Your task to perform on an android device: Open internet settings Image 0: 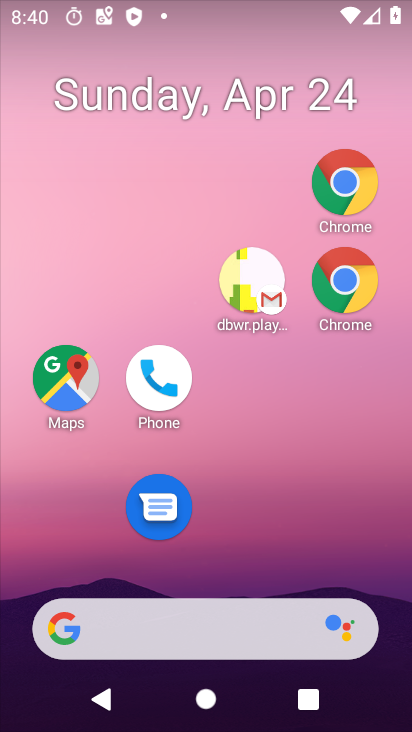
Step 0: drag from (275, 643) to (207, 221)
Your task to perform on an android device: Open internet settings Image 1: 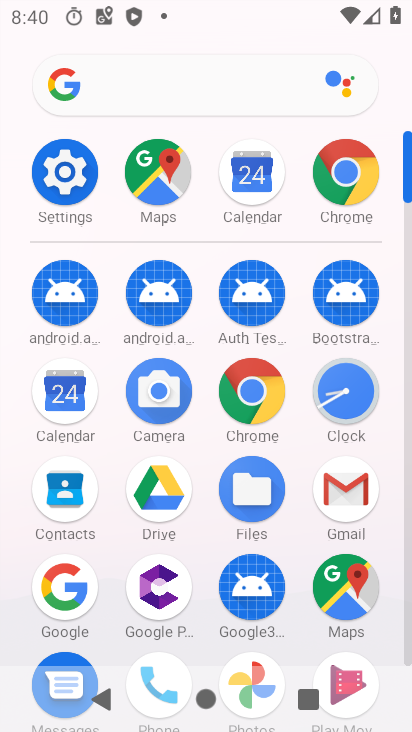
Step 1: click (65, 181)
Your task to perform on an android device: Open internet settings Image 2: 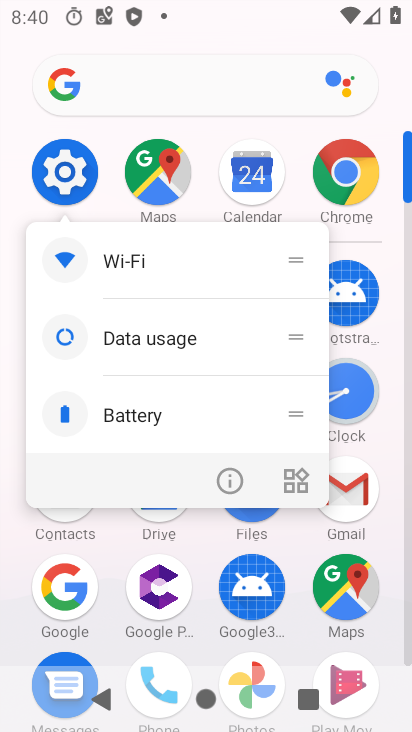
Step 2: click (41, 164)
Your task to perform on an android device: Open internet settings Image 3: 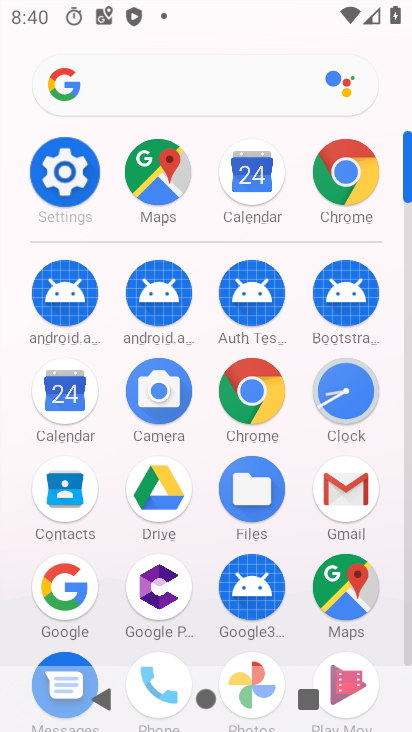
Step 3: click (59, 182)
Your task to perform on an android device: Open internet settings Image 4: 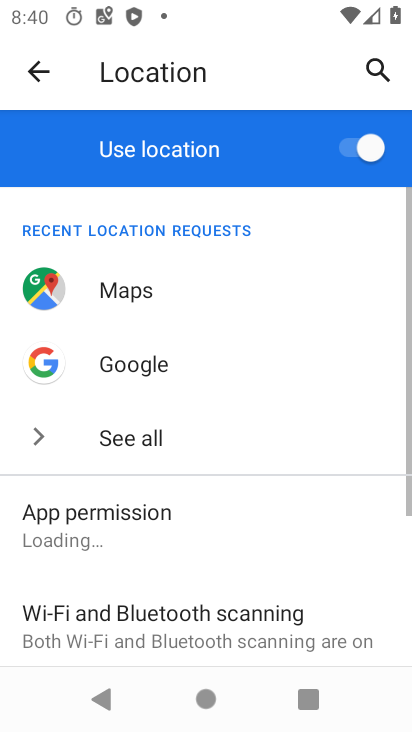
Step 4: drag from (174, 191) to (227, 642)
Your task to perform on an android device: Open internet settings Image 5: 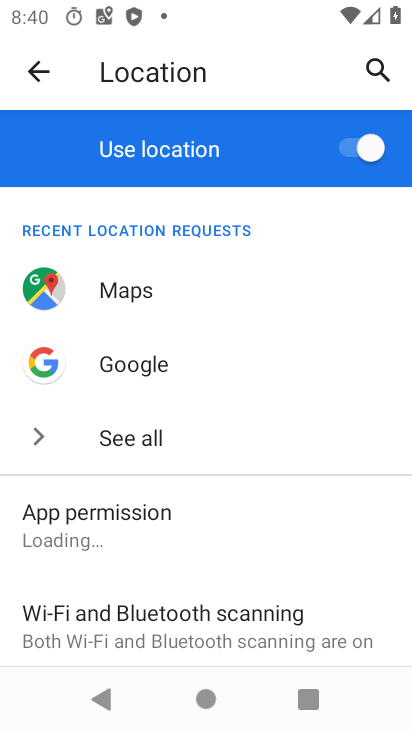
Step 5: click (23, 71)
Your task to perform on an android device: Open internet settings Image 6: 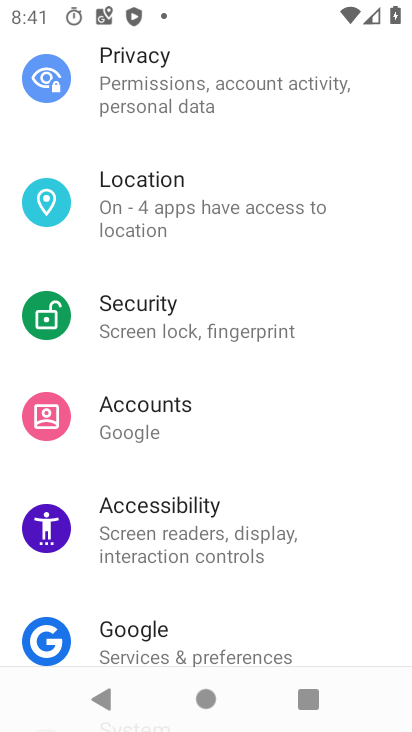
Step 6: drag from (154, 200) to (195, 615)
Your task to perform on an android device: Open internet settings Image 7: 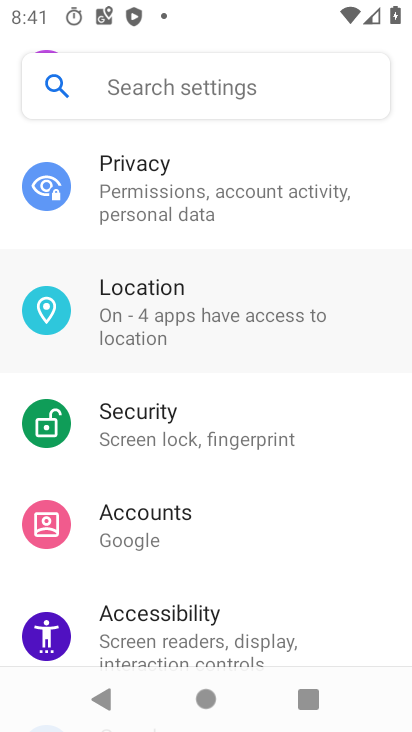
Step 7: drag from (221, 278) to (232, 730)
Your task to perform on an android device: Open internet settings Image 8: 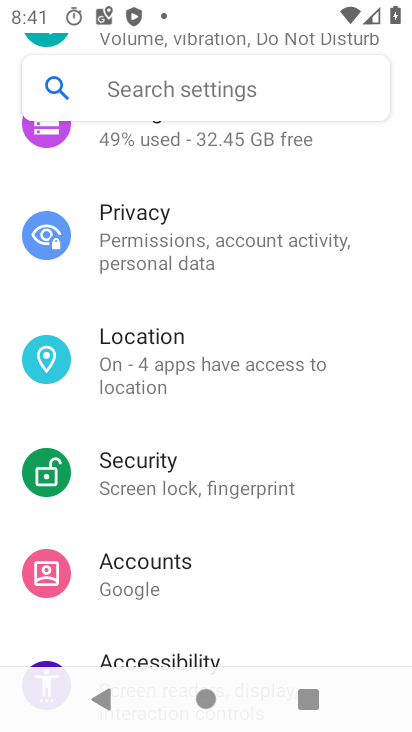
Step 8: drag from (199, 448) to (203, 633)
Your task to perform on an android device: Open internet settings Image 9: 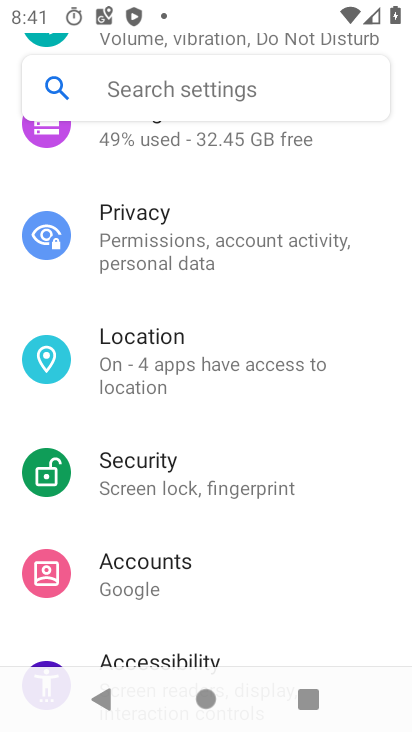
Step 9: drag from (228, 336) to (189, 683)
Your task to perform on an android device: Open internet settings Image 10: 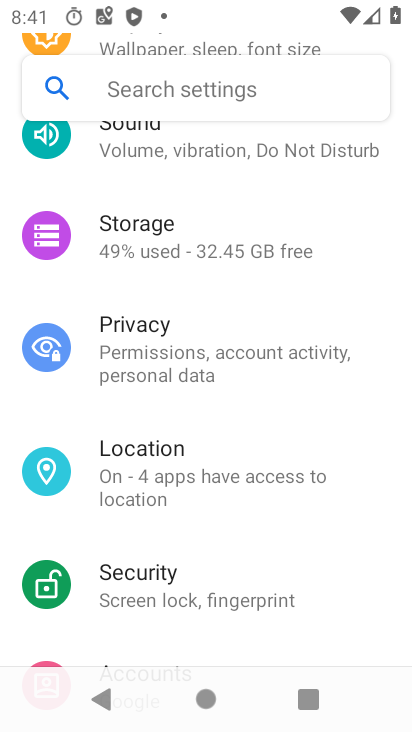
Step 10: drag from (257, 583) to (268, 722)
Your task to perform on an android device: Open internet settings Image 11: 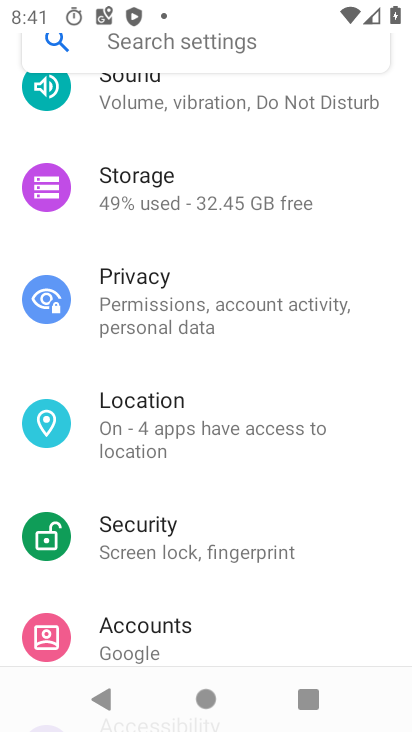
Step 11: drag from (237, 360) to (206, 720)
Your task to perform on an android device: Open internet settings Image 12: 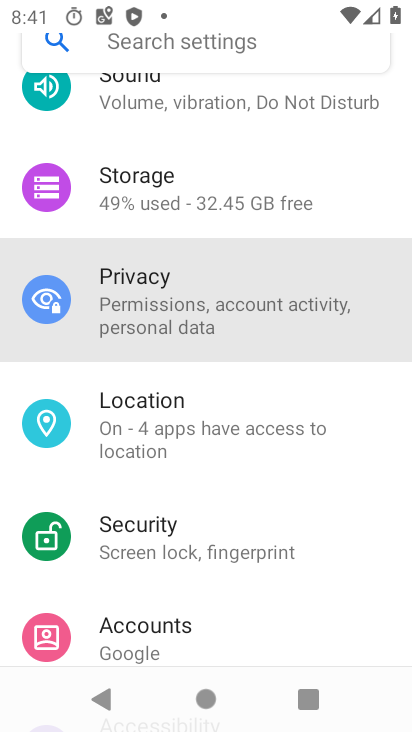
Step 12: drag from (197, 512) to (233, 715)
Your task to perform on an android device: Open internet settings Image 13: 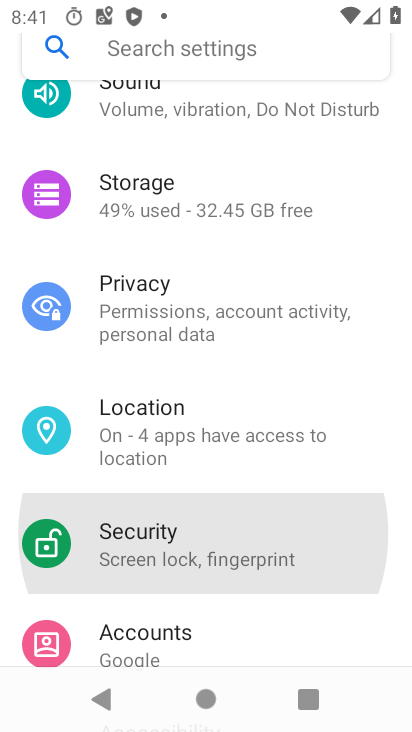
Step 13: drag from (216, 256) to (268, 651)
Your task to perform on an android device: Open internet settings Image 14: 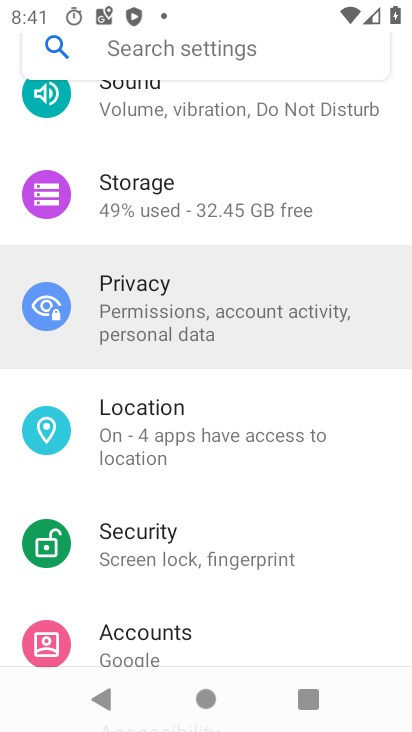
Step 14: drag from (225, 361) to (214, 679)
Your task to perform on an android device: Open internet settings Image 15: 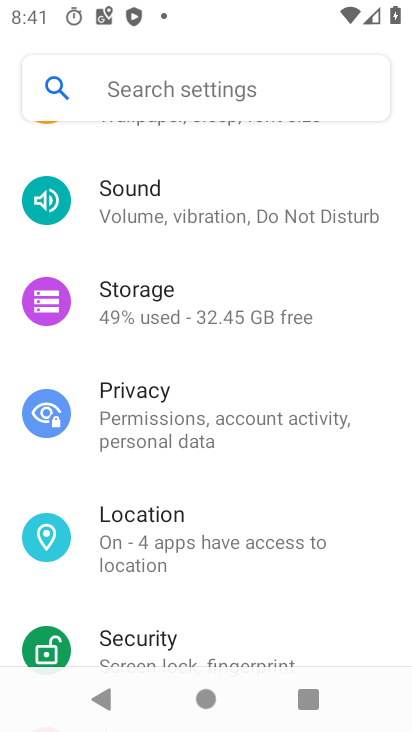
Step 15: drag from (277, 349) to (303, 626)
Your task to perform on an android device: Open internet settings Image 16: 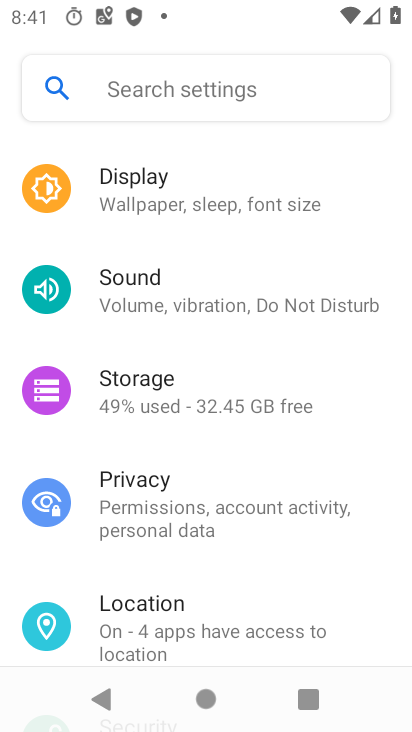
Step 16: drag from (224, 314) to (242, 507)
Your task to perform on an android device: Open internet settings Image 17: 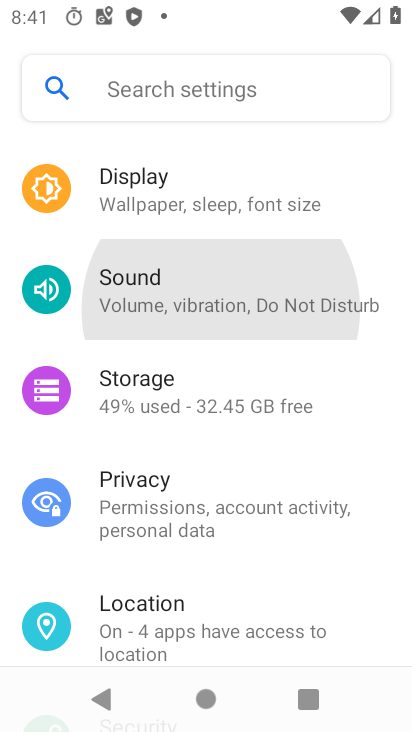
Step 17: drag from (168, 483) to (152, 654)
Your task to perform on an android device: Open internet settings Image 18: 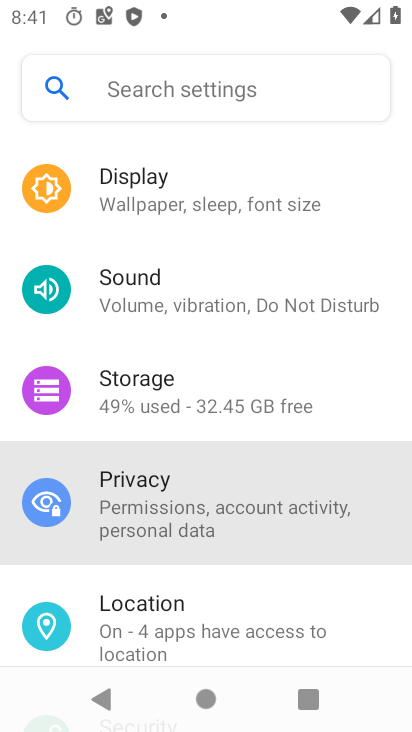
Step 18: drag from (123, 246) to (209, 677)
Your task to perform on an android device: Open internet settings Image 19: 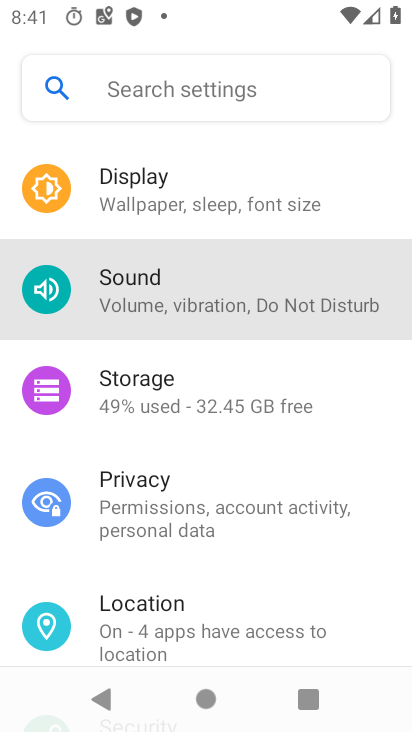
Step 19: drag from (229, 246) to (247, 726)
Your task to perform on an android device: Open internet settings Image 20: 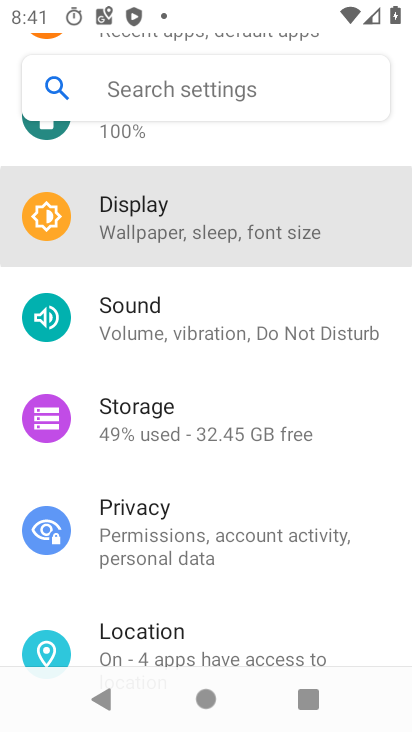
Step 20: drag from (216, 175) to (231, 669)
Your task to perform on an android device: Open internet settings Image 21: 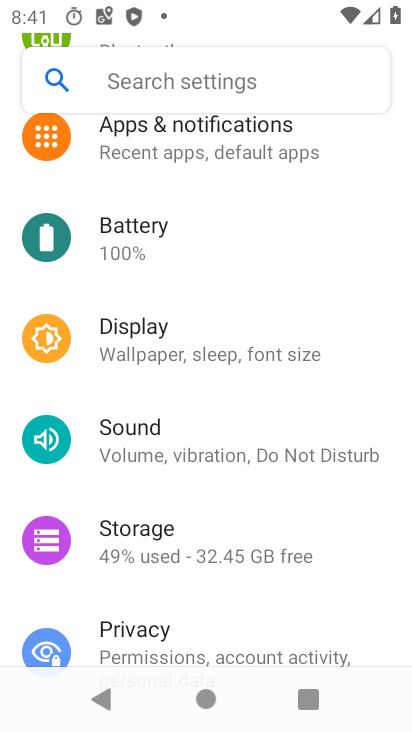
Step 21: drag from (201, 204) to (198, 724)
Your task to perform on an android device: Open internet settings Image 22: 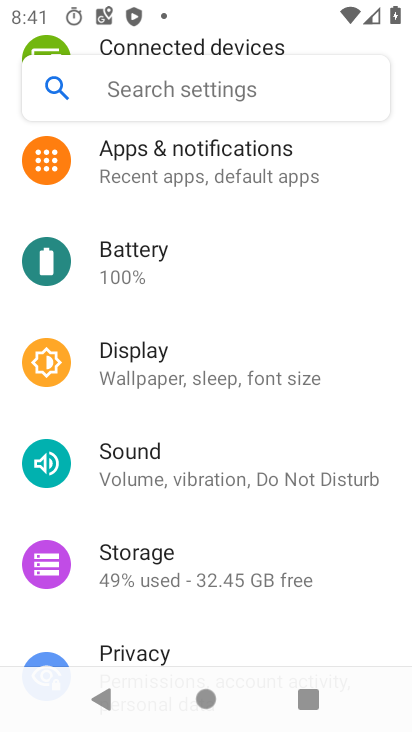
Step 22: drag from (170, 329) to (247, 664)
Your task to perform on an android device: Open internet settings Image 23: 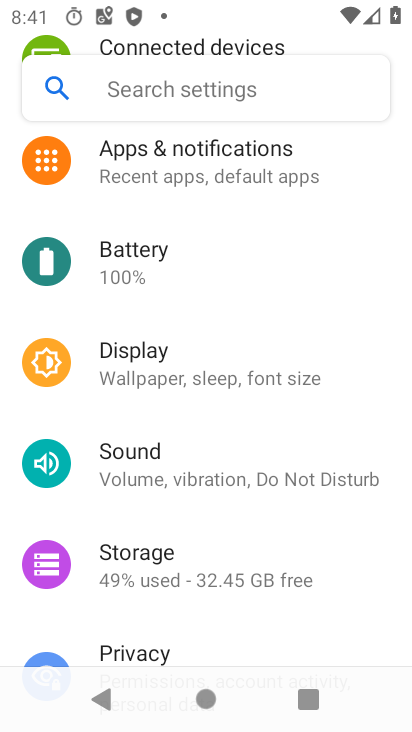
Step 23: click (203, 694)
Your task to perform on an android device: Open internet settings Image 24: 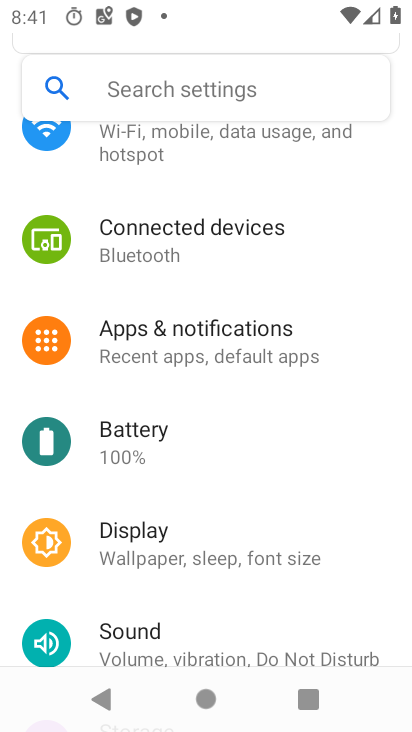
Step 24: click (240, 530)
Your task to perform on an android device: Open internet settings Image 25: 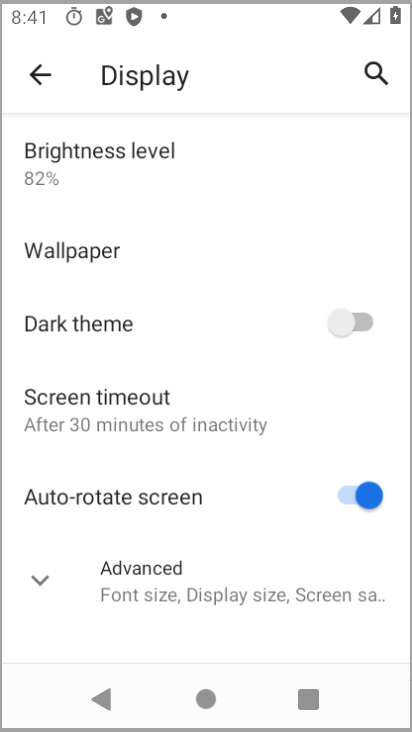
Step 25: click (165, 143)
Your task to perform on an android device: Open internet settings Image 26: 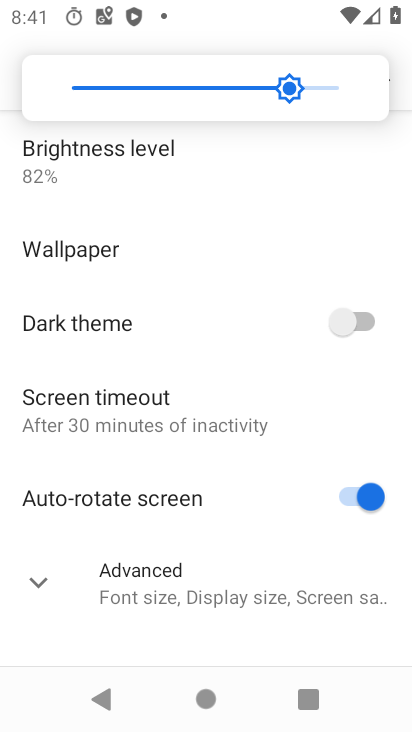
Step 26: press home button
Your task to perform on an android device: Open internet settings Image 27: 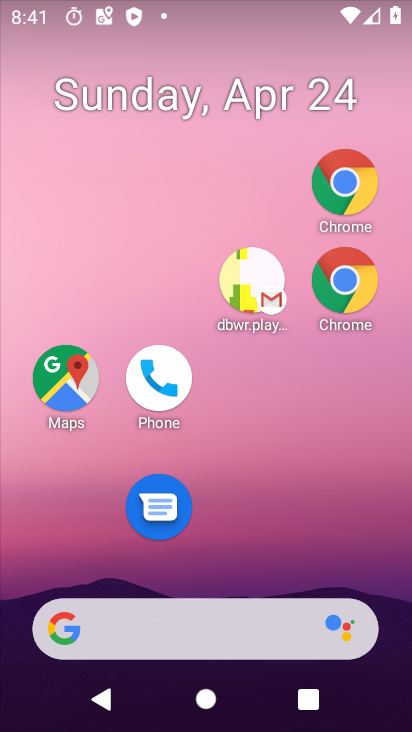
Step 27: drag from (249, 681) to (26, 383)
Your task to perform on an android device: Open internet settings Image 28: 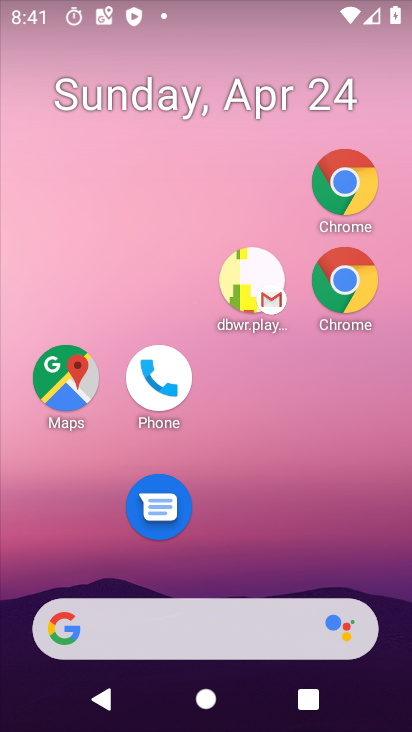
Step 28: drag from (279, 487) to (193, 10)
Your task to perform on an android device: Open internet settings Image 29: 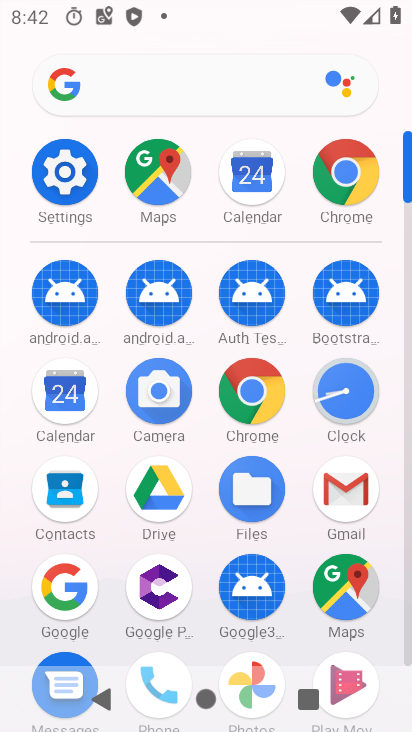
Step 29: click (68, 175)
Your task to perform on an android device: Open internet settings Image 30: 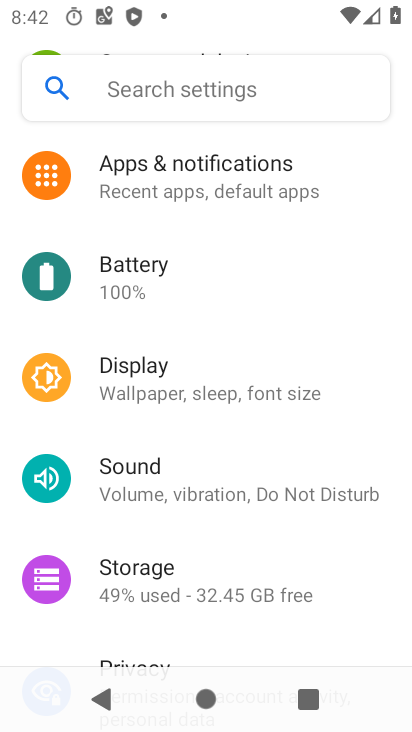
Step 30: click (80, 188)
Your task to perform on an android device: Open internet settings Image 31: 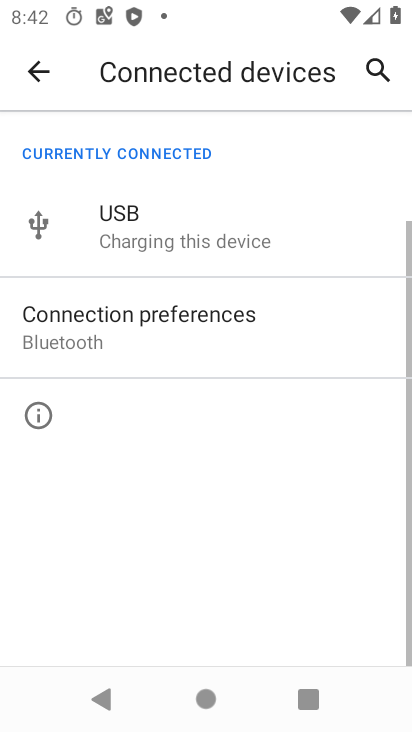
Step 31: drag from (200, 202) to (217, 642)
Your task to perform on an android device: Open internet settings Image 32: 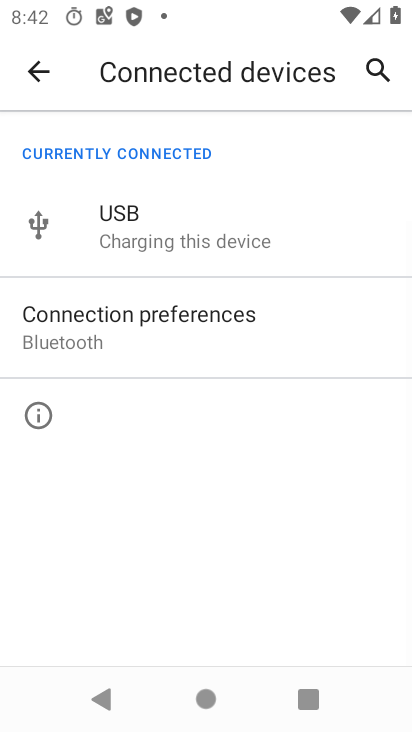
Step 32: click (33, 71)
Your task to perform on an android device: Open internet settings Image 33: 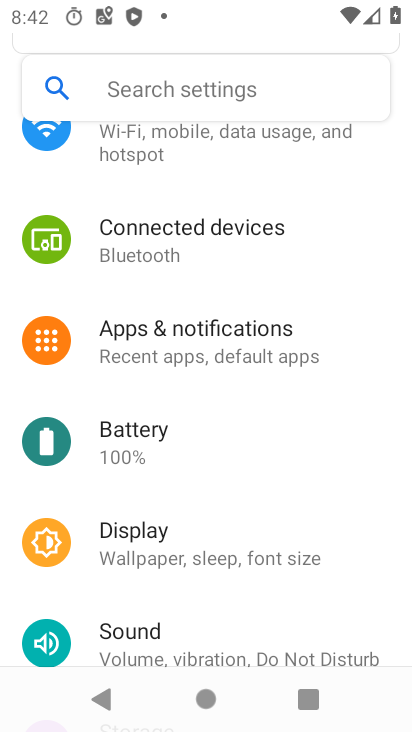
Step 33: drag from (223, 299) to (199, 650)
Your task to perform on an android device: Open internet settings Image 34: 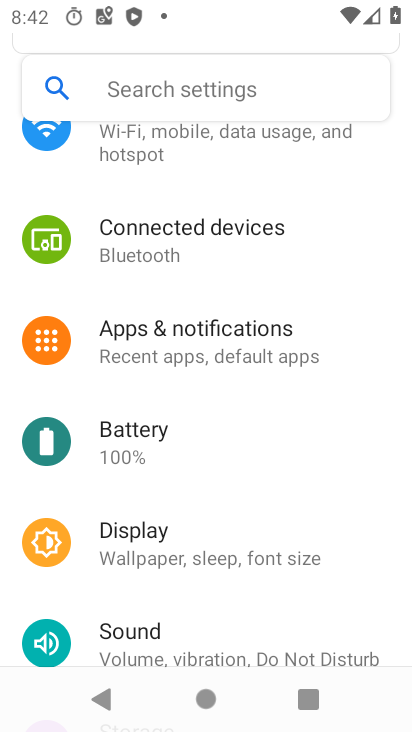
Step 34: click (182, 126)
Your task to perform on an android device: Open internet settings Image 35: 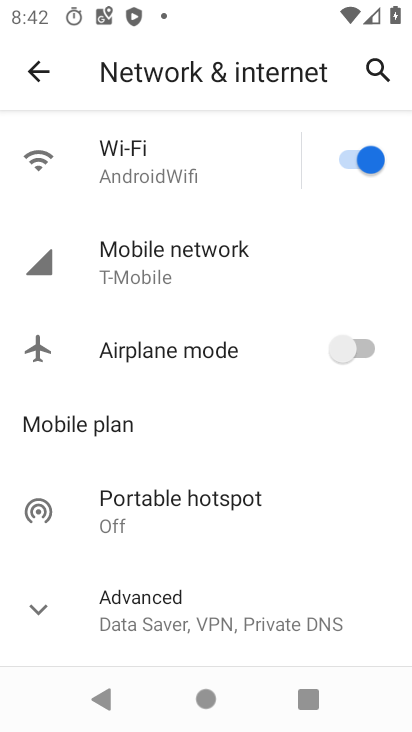
Step 35: task complete